Your task to perform on an android device: turn on translation in the chrome app Image 0: 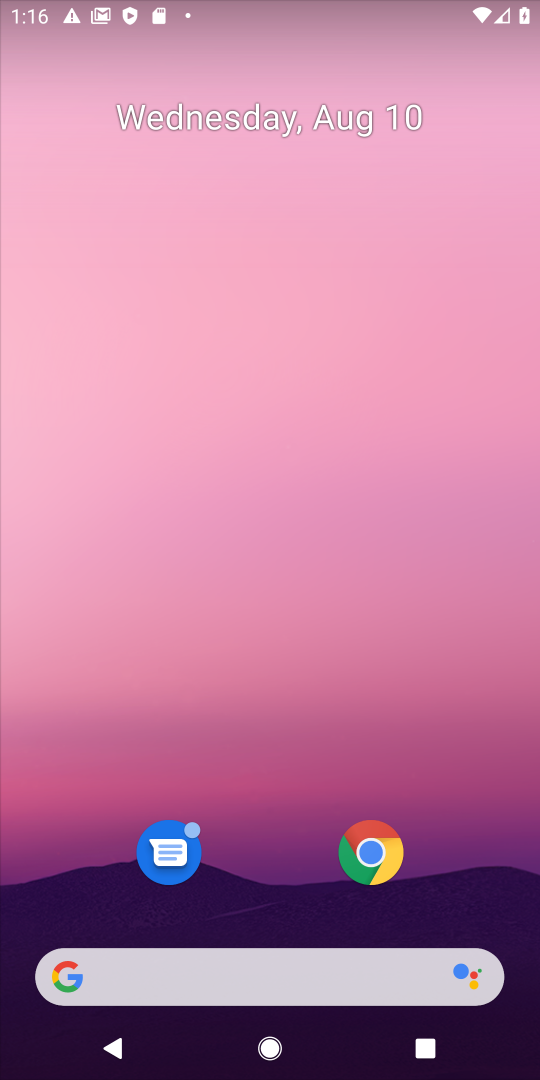
Step 0: drag from (272, 815) to (278, 6)
Your task to perform on an android device: turn on translation in the chrome app Image 1: 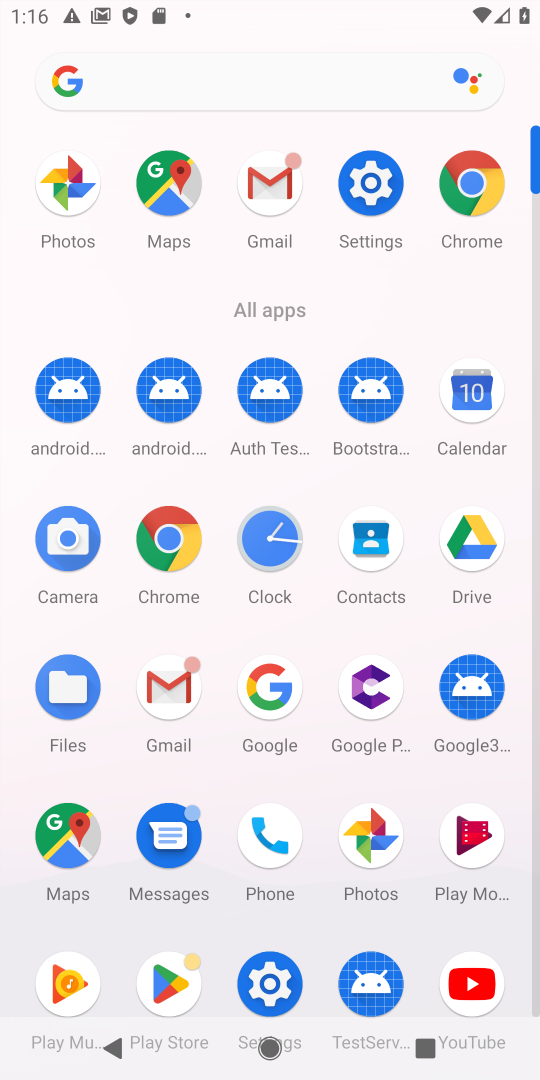
Step 1: click (168, 552)
Your task to perform on an android device: turn on translation in the chrome app Image 2: 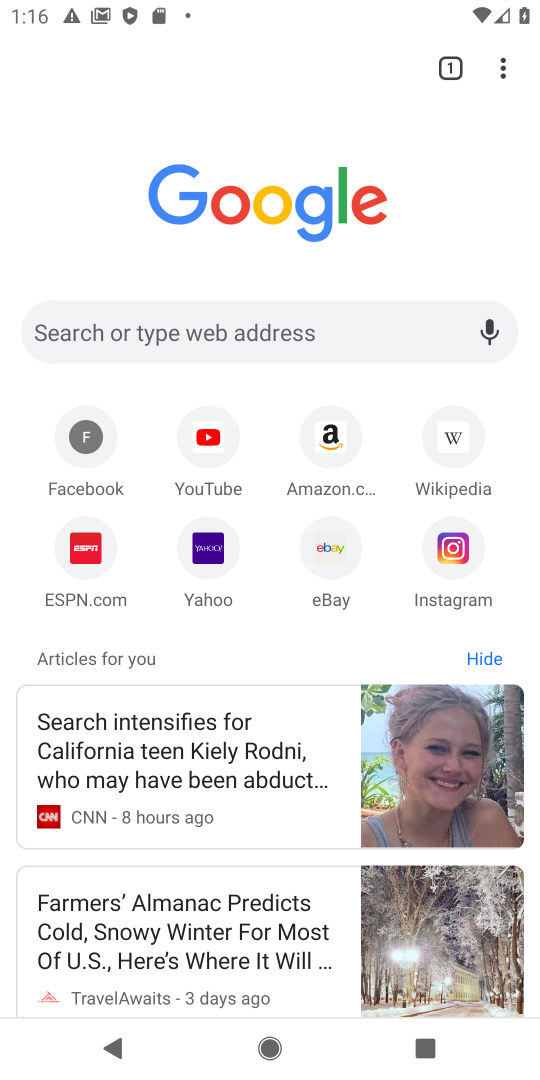
Step 2: drag from (504, 64) to (263, 568)
Your task to perform on an android device: turn on translation in the chrome app Image 3: 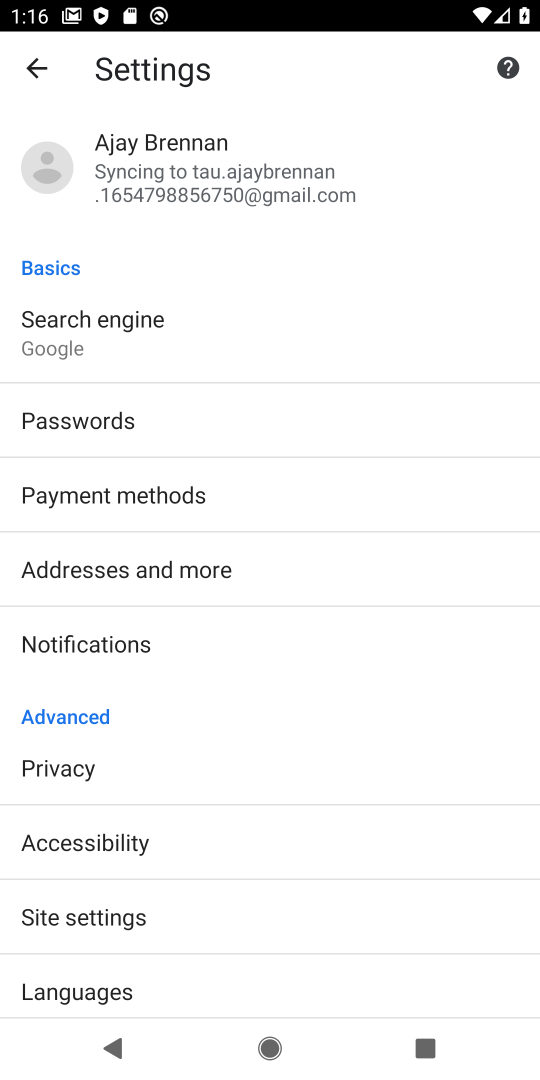
Step 3: click (102, 971)
Your task to perform on an android device: turn on translation in the chrome app Image 4: 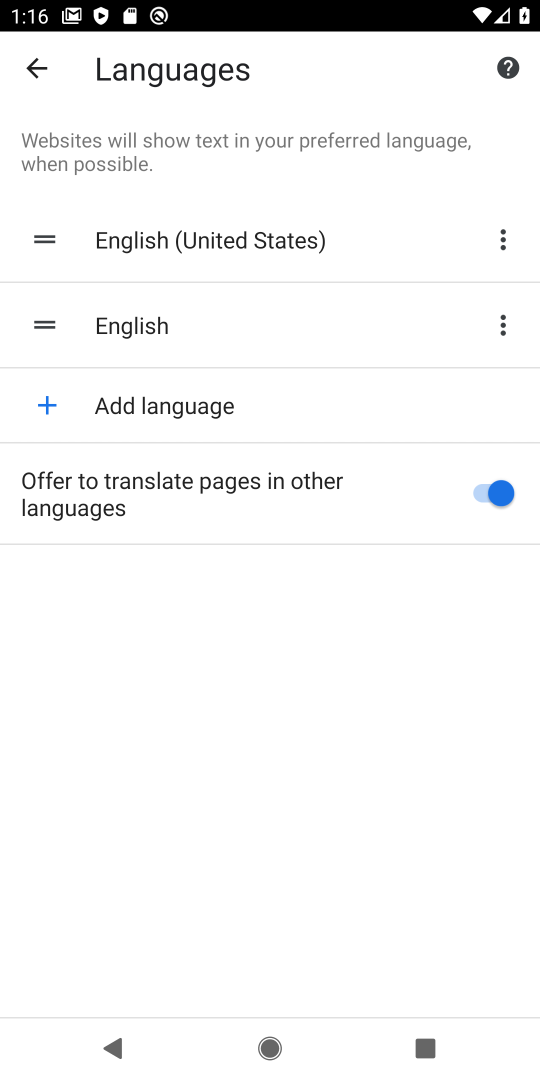
Step 4: task complete